Your task to perform on an android device: snooze an email in the gmail app Image 0: 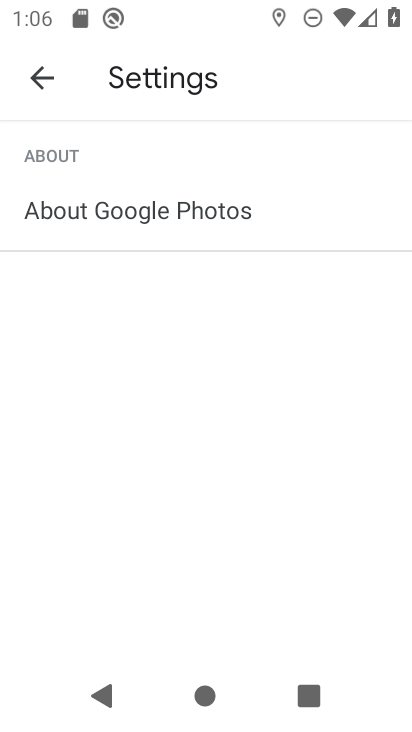
Step 0: press home button
Your task to perform on an android device: snooze an email in the gmail app Image 1: 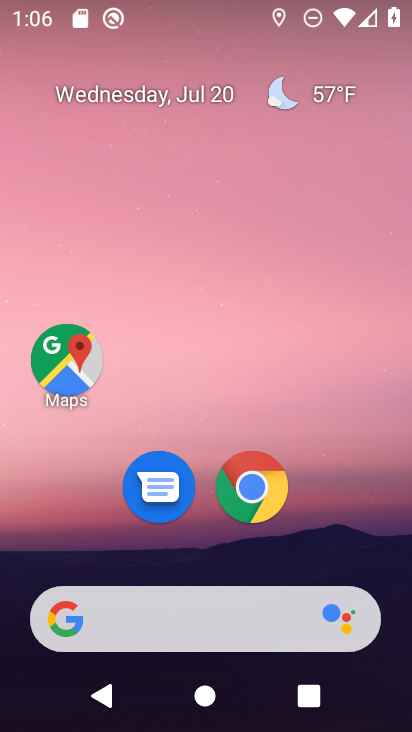
Step 1: drag from (337, 523) to (368, 145)
Your task to perform on an android device: snooze an email in the gmail app Image 2: 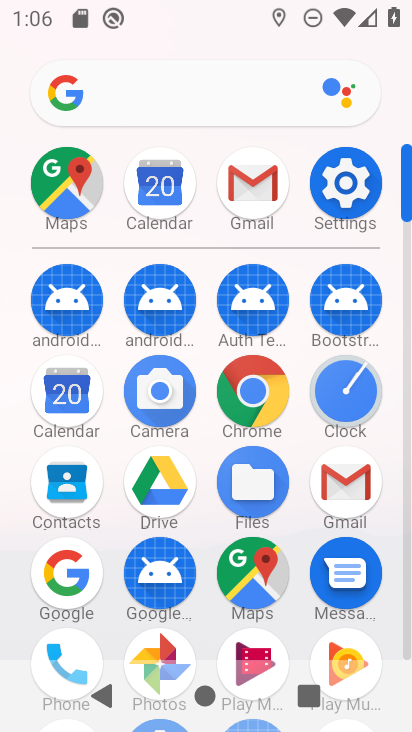
Step 2: click (362, 486)
Your task to perform on an android device: snooze an email in the gmail app Image 3: 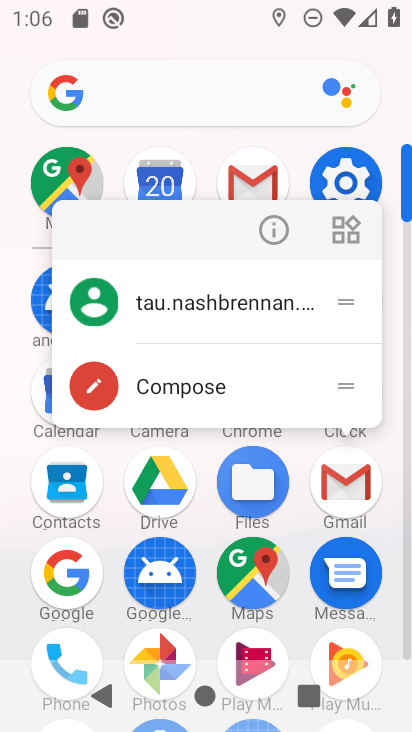
Step 3: click (361, 485)
Your task to perform on an android device: snooze an email in the gmail app Image 4: 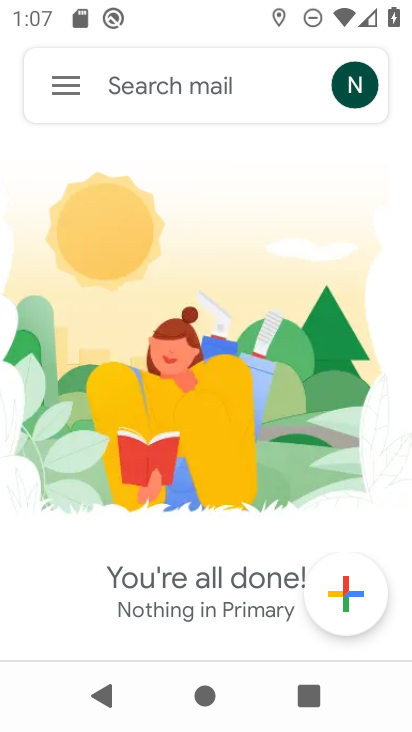
Step 4: click (74, 78)
Your task to perform on an android device: snooze an email in the gmail app Image 5: 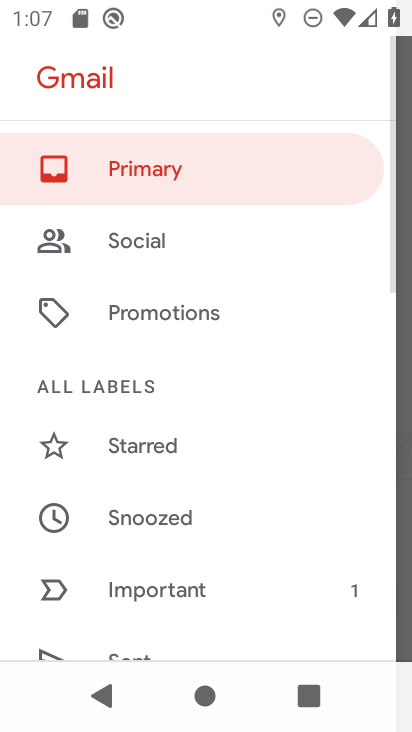
Step 5: drag from (254, 442) to (270, 360)
Your task to perform on an android device: snooze an email in the gmail app Image 6: 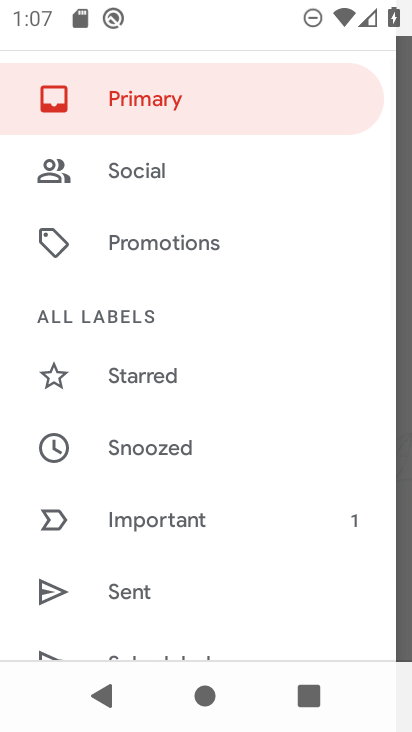
Step 6: drag from (271, 501) to (278, 381)
Your task to perform on an android device: snooze an email in the gmail app Image 7: 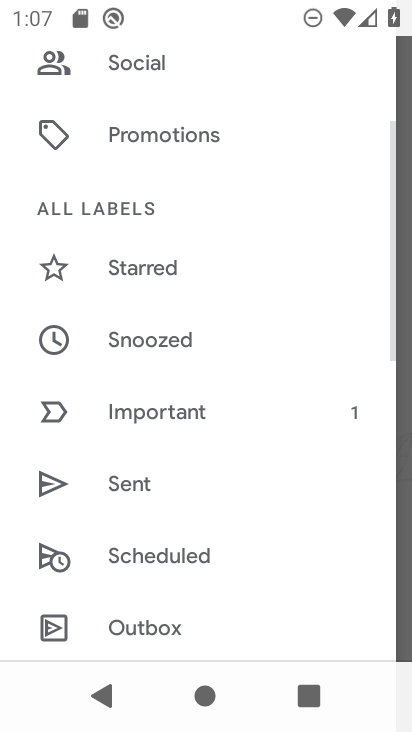
Step 7: drag from (269, 480) to (269, 383)
Your task to perform on an android device: snooze an email in the gmail app Image 8: 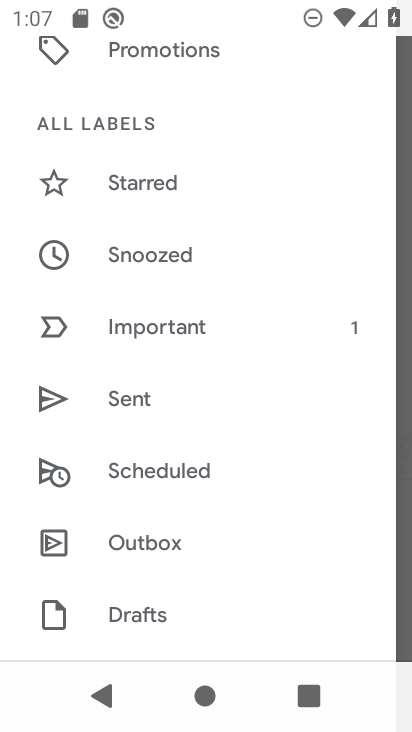
Step 8: drag from (259, 502) to (262, 390)
Your task to perform on an android device: snooze an email in the gmail app Image 9: 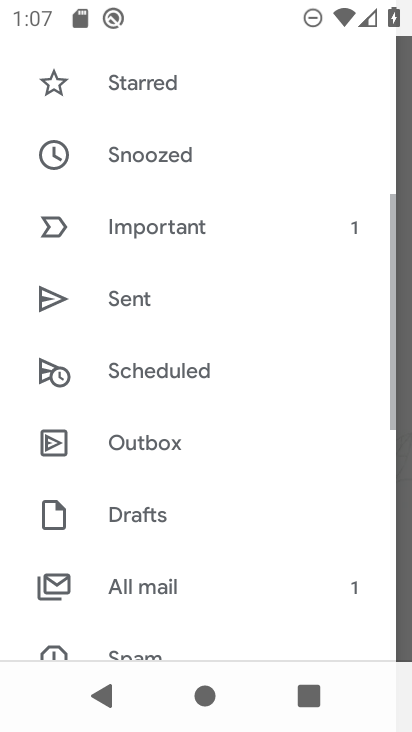
Step 9: drag from (260, 272) to (264, 380)
Your task to perform on an android device: snooze an email in the gmail app Image 10: 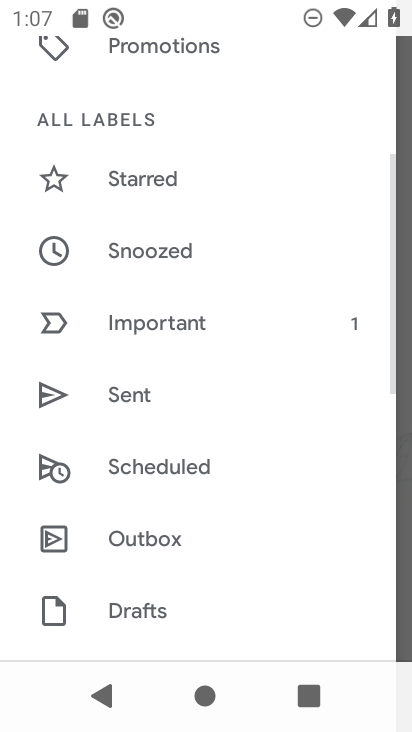
Step 10: drag from (264, 234) to (267, 321)
Your task to perform on an android device: snooze an email in the gmail app Image 11: 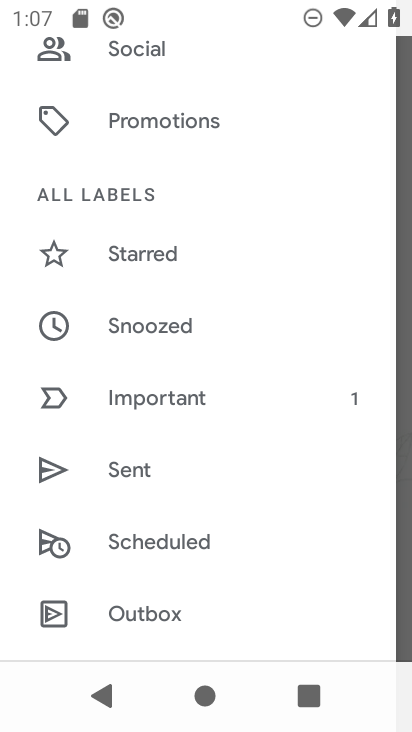
Step 11: drag from (269, 230) to (274, 301)
Your task to perform on an android device: snooze an email in the gmail app Image 12: 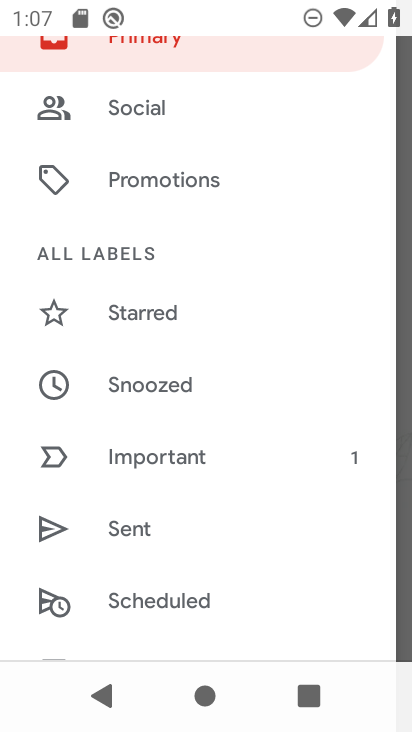
Step 12: drag from (265, 209) to (270, 326)
Your task to perform on an android device: snooze an email in the gmail app Image 13: 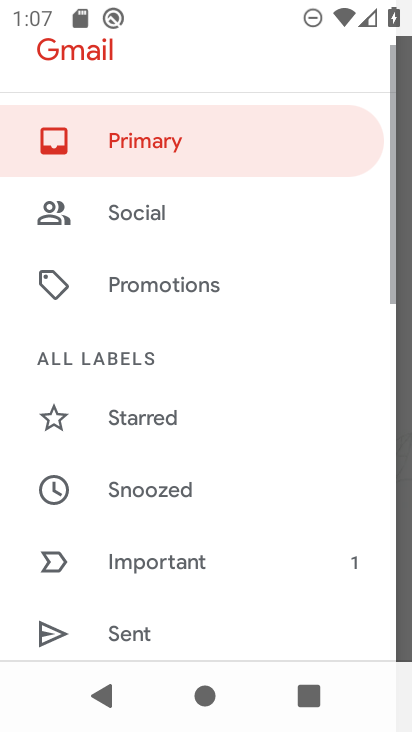
Step 13: click (223, 477)
Your task to perform on an android device: snooze an email in the gmail app Image 14: 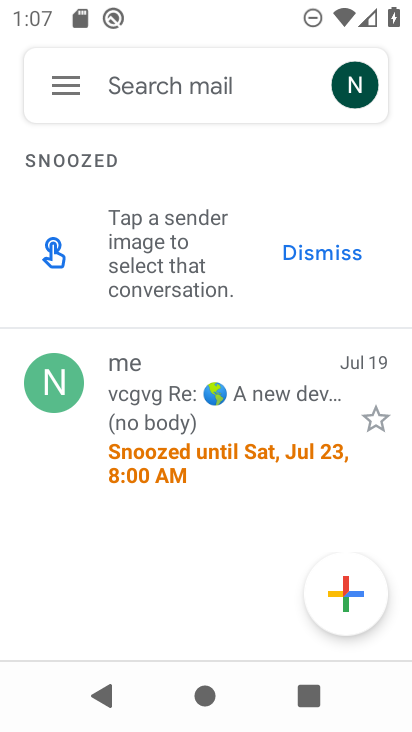
Step 14: task complete